Your task to perform on an android device: Go to CNN.com Image 0: 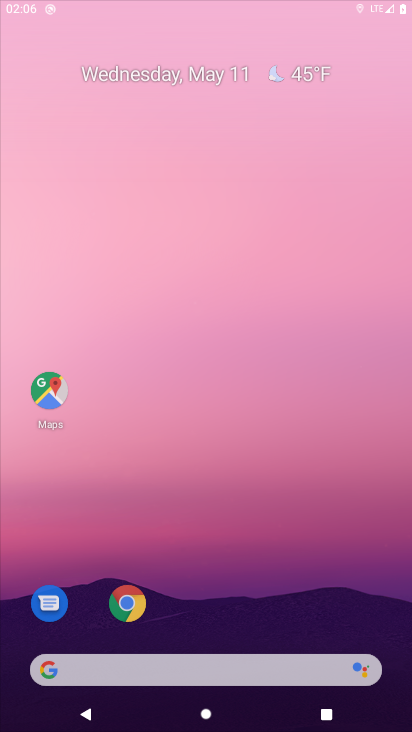
Step 0: click (244, 21)
Your task to perform on an android device: Go to CNN.com Image 1: 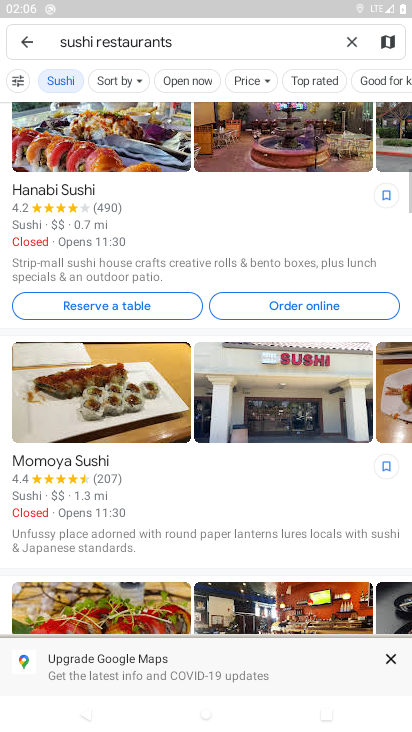
Step 1: press home button
Your task to perform on an android device: Go to CNN.com Image 2: 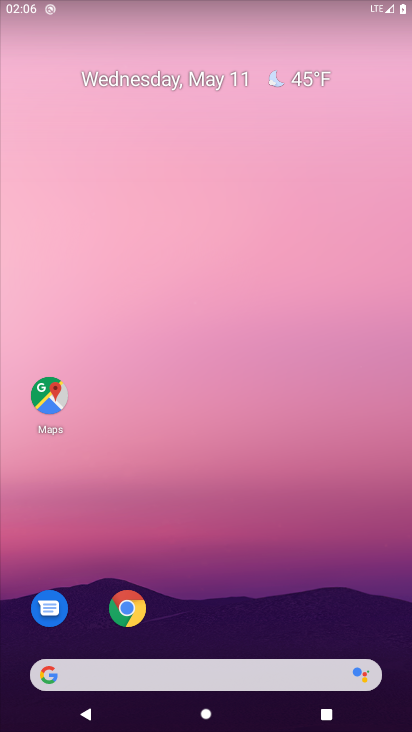
Step 2: drag from (217, 644) to (244, 9)
Your task to perform on an android device: Go to CNN.com Image 3: 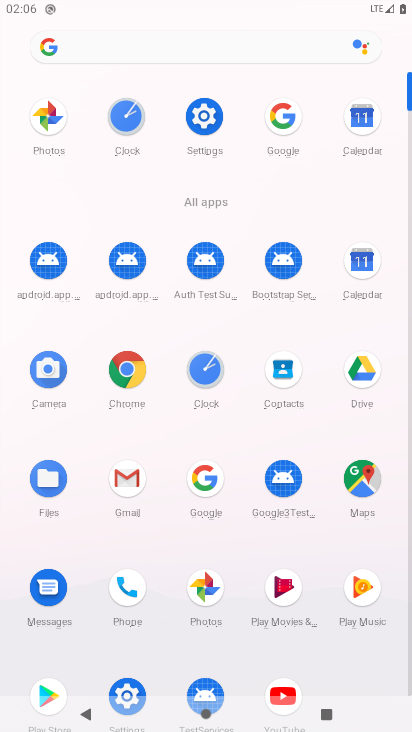
Step 3: click (128, 371)
Your task to perform on an android device: Go to CNN.com Image 4: 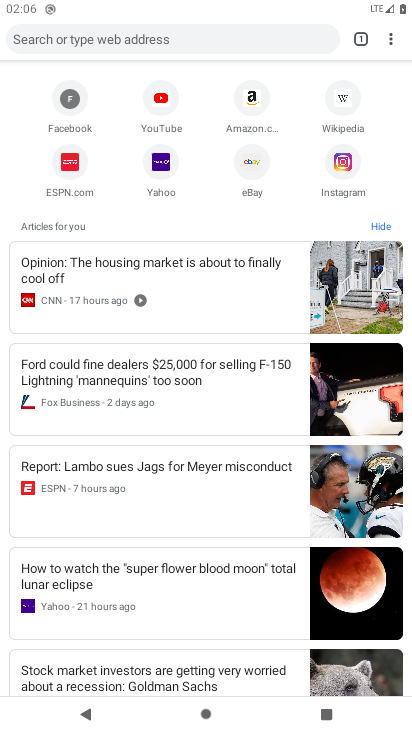
Step 4: click (147, 37)
Your task to perform on an android device: Go to CNN.com Image 5: 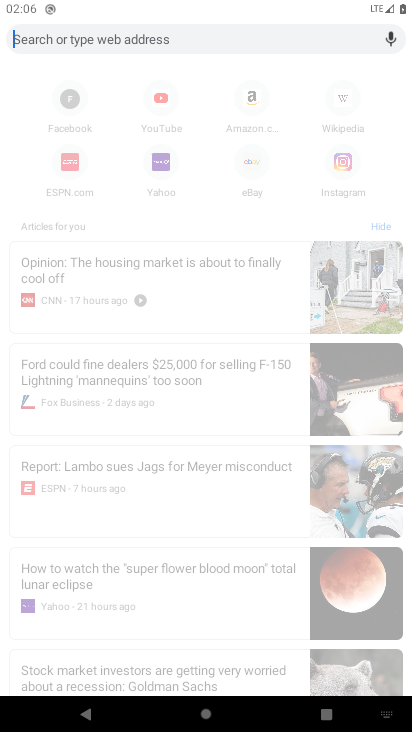
Step 5: type "cnn.com"
Your task to perform on an android device: Go to CNN.com Image 6: 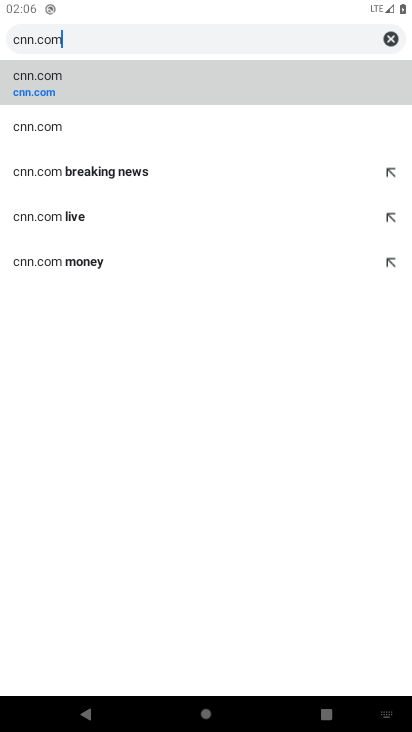
Step 6: click (59, 82)
Your task to perform on an android device: Go to CNN.com Image 7: 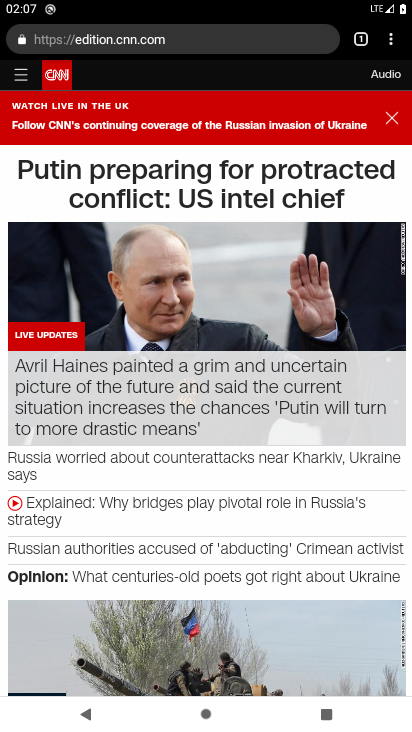
Step 7: task complete